Your task to perform on an android device: Open the map Image 0: 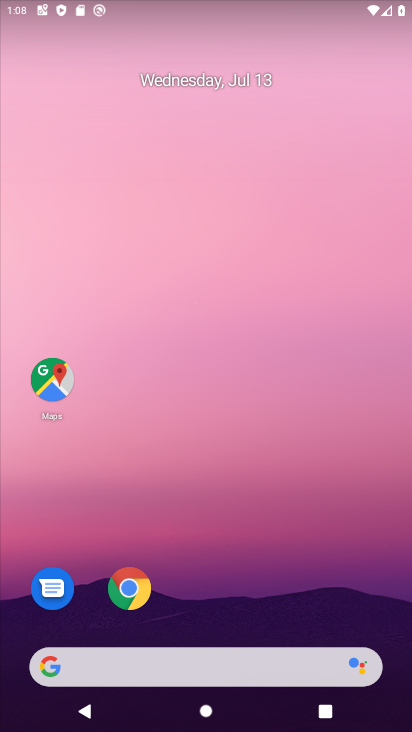
Step 0: click (63, 384)
Your task to perform on an android device: Open the map Image 1: 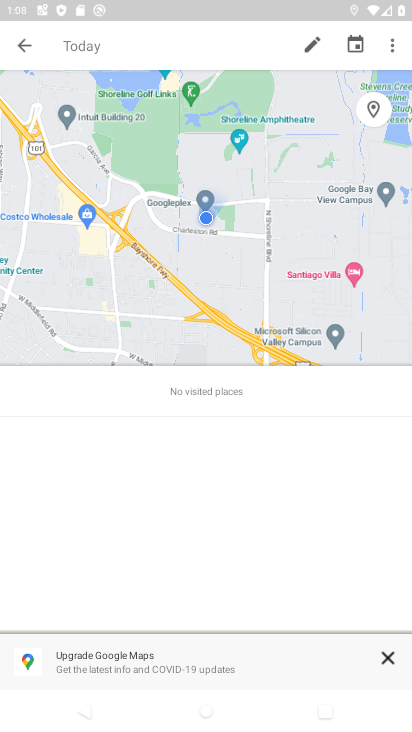
Step 1: click (386, 660)
Your task to perform on an android device: Open the map Image 2: 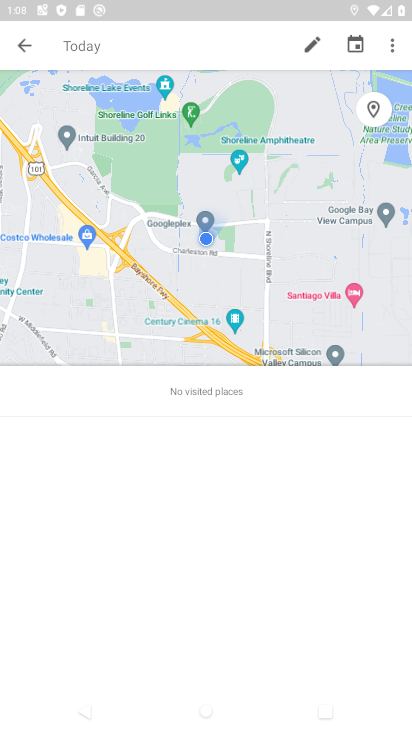
Step 2: click (21, 45)
Your task to perform on an android device: Open the map Image 3: 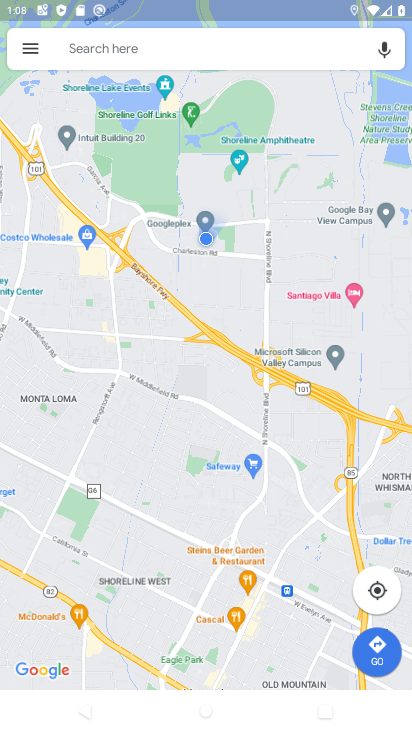
Step 3: task complete